Your task to perform on an android device: Is it going to rain today? Image 0: 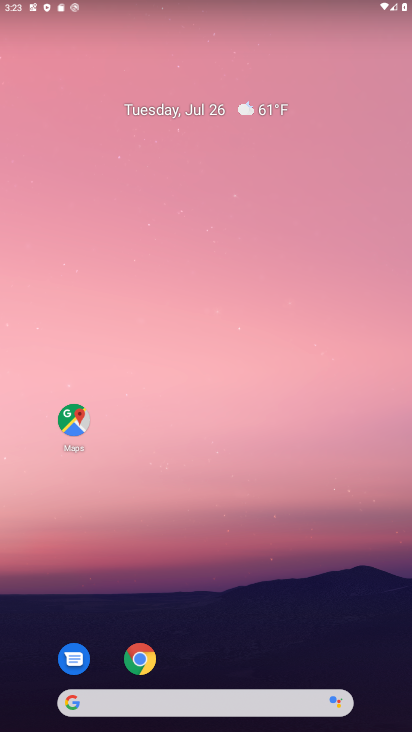
Step 0: click (190, 709)
Your task to perform on an android device: Is it going to rain today? Image 1: 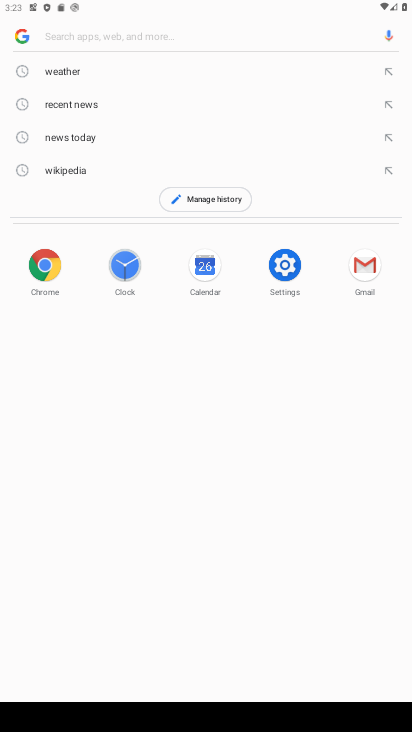
Step 1: click (53, 65)
Your task to perform on an android device: Is it going to rain today? Image 2: 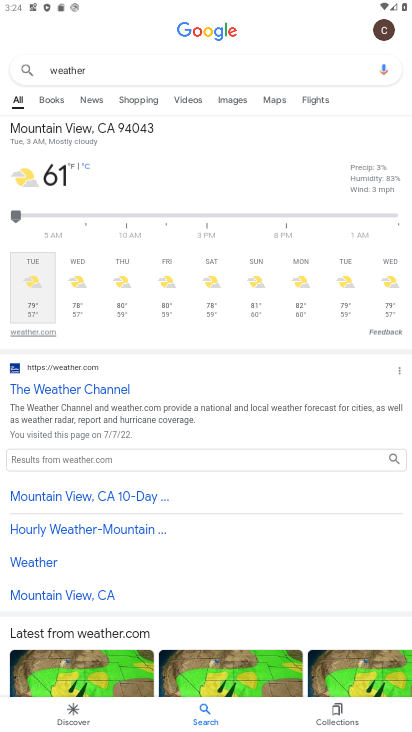
Step 2: task complete